Your task to perform on an android device: Open Google Maps Image 0: 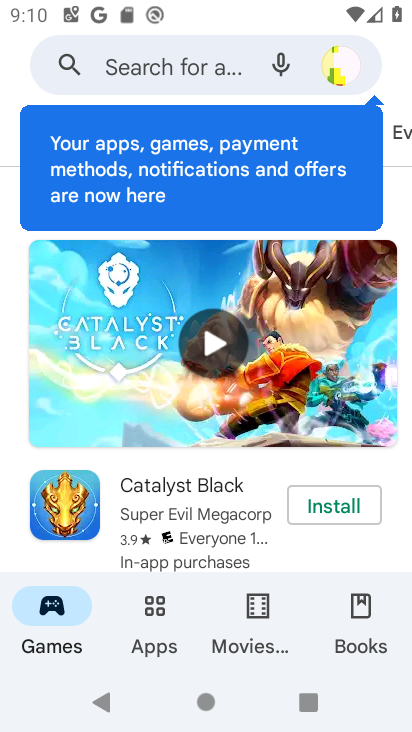
Step 0: press home button
Your task to perform on an android device: Open Google Maps Image 1: 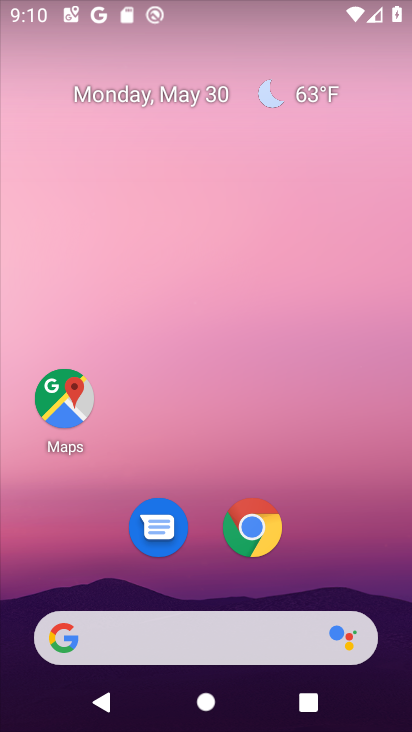
Step 1: click (60, 398)
Your task to perform on an android device: Open Google Maps Image 2: 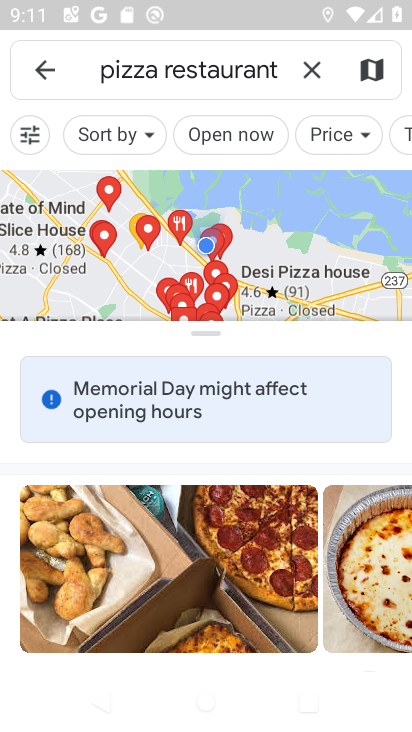
Step 2: task complete